Your task to perform on an android device: Open network settings Image 0: 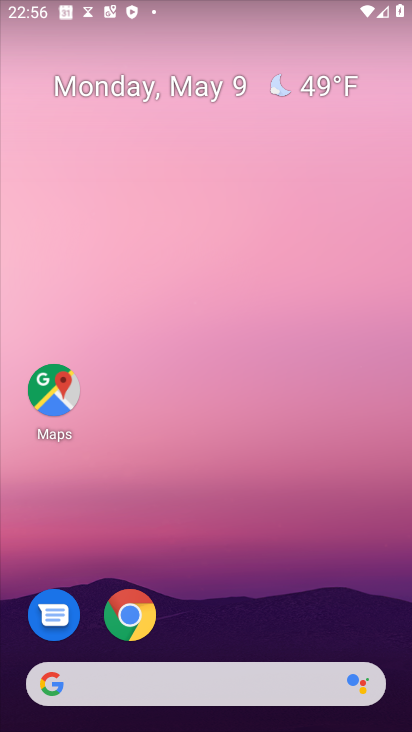
Step 0: drag from (267, 549) to (246, 115)
Your task to perform on an android device: Open network settings Image 1: 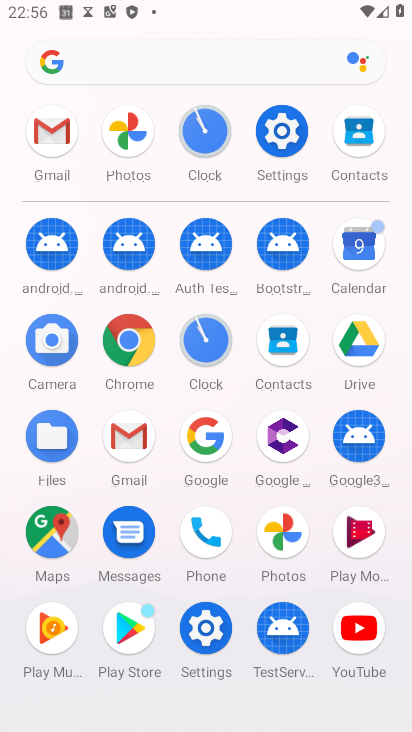
Step 1: click (275, 138)
Your task to perform on an android device: Open network settings Image 2: 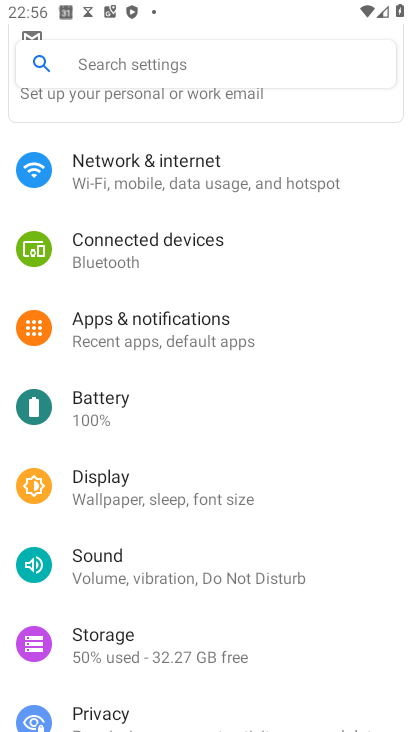
Step 2: click (164, 182)
Your task to perform on an android device: Open network settings Image 3: 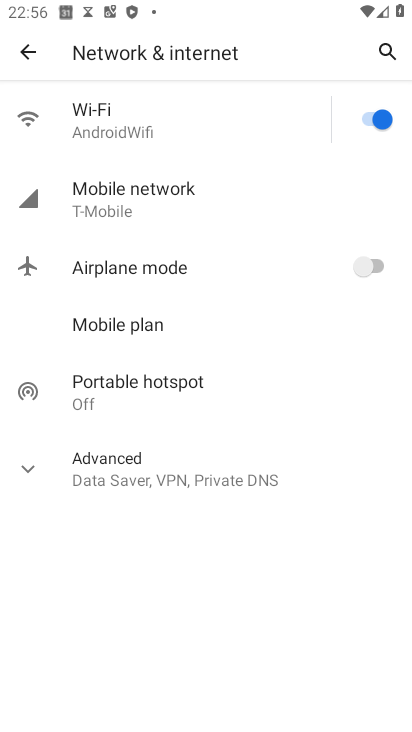
Step 3: task complete